Your task to perform on an android device: Search for Italian restaurants on Maps Image 0: 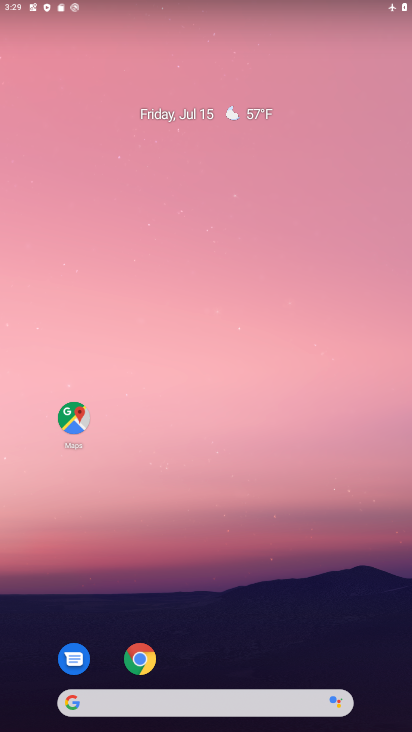
Step 0: click (78, 422)
Your task to perform on an android device: Search for Italian restaurants on Maps Image 1: 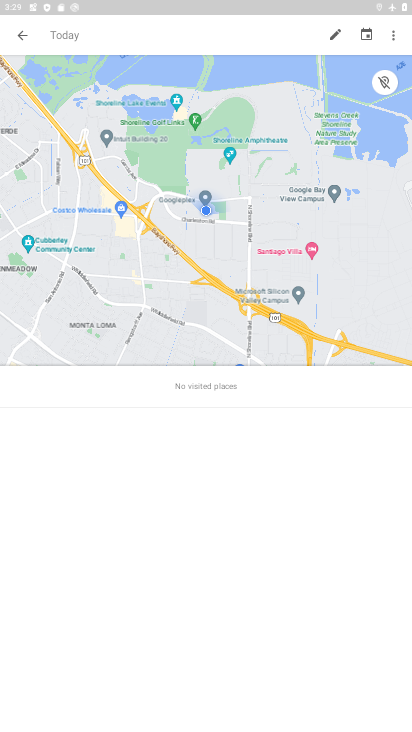
Step 1: click (15, 36)
Your task to perform on an android device: Search for Italian restaurants on Maps Image 2: 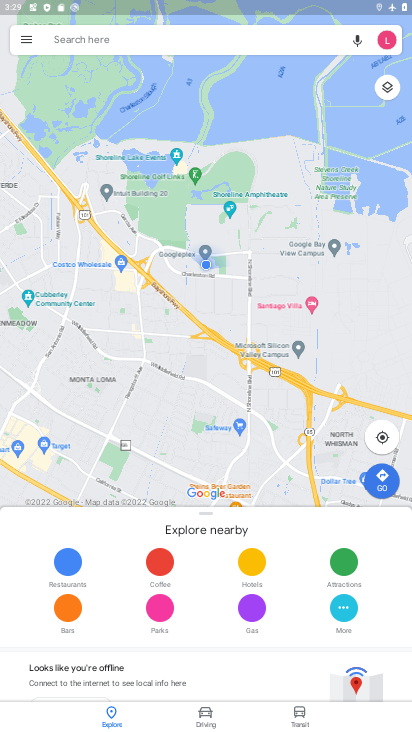
Step 2: click (58, 41)
Your task to perform on an android device: Search for Italian restaurants on Maps Image 3: 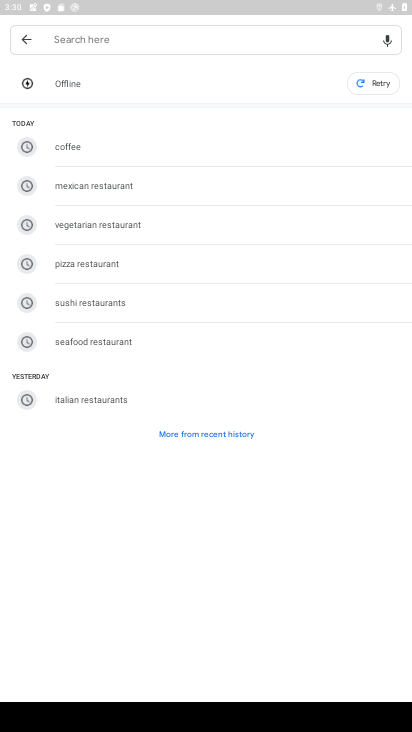
Step 3: type "Italian restaurants"
Your task to perform on an android device: Search for Italian restaurants on Maps Image 4: 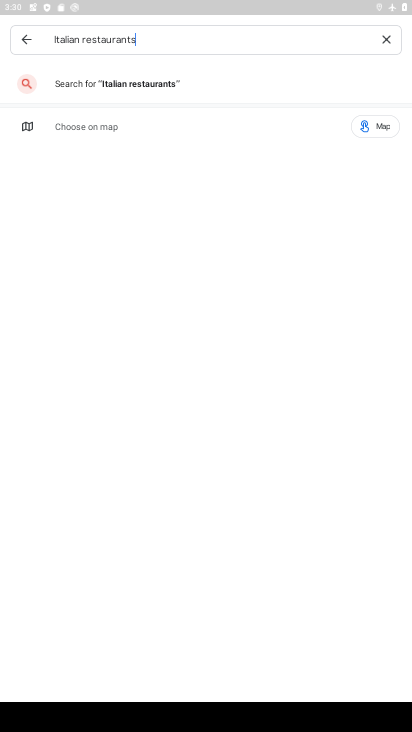
Step 4: type ""
Your task to perform on an android device: Search for Italian restaurants on Maps Image 5: 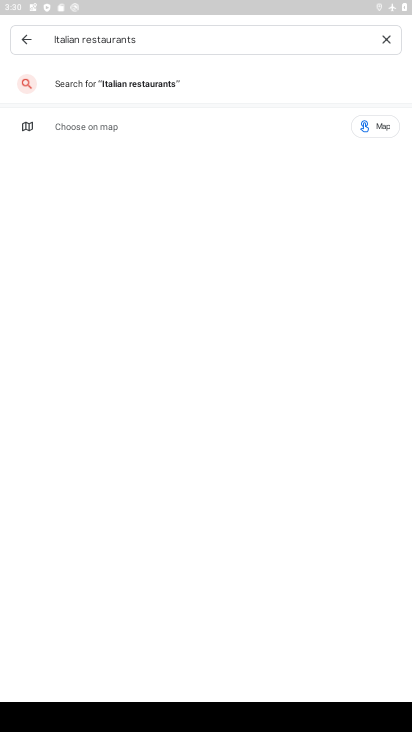
Step 5: type ""
Your task to perform on an android device: Search for Italian restaurants on Maps Image 6: 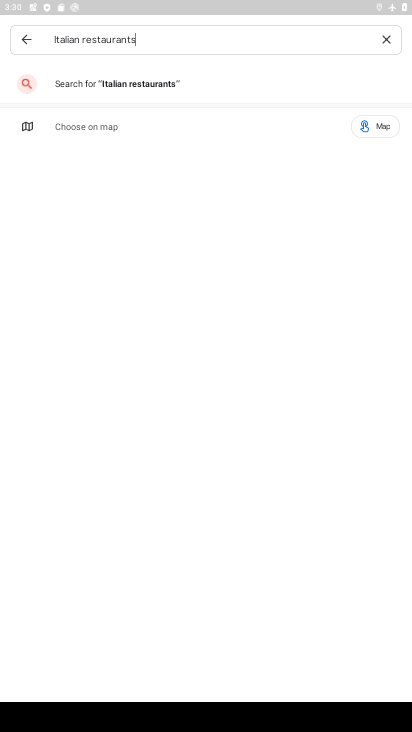
Step 6: task complete